Your task to perform on an android device: turn off picture-in-picture Image 0: 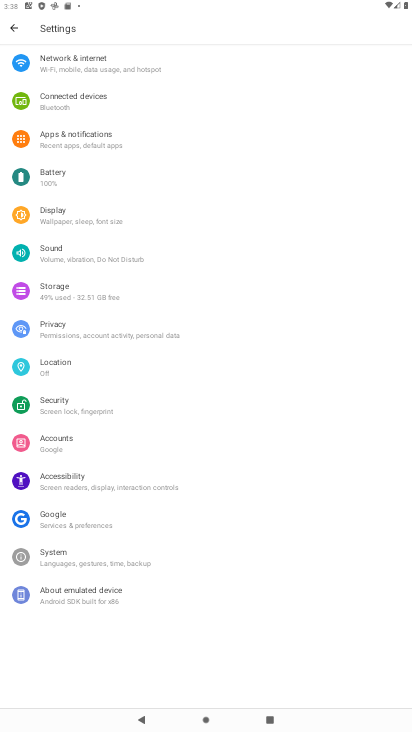
Step 0: press home button
Your task to perform on an android device: turn off picture-in-picture Image 1: 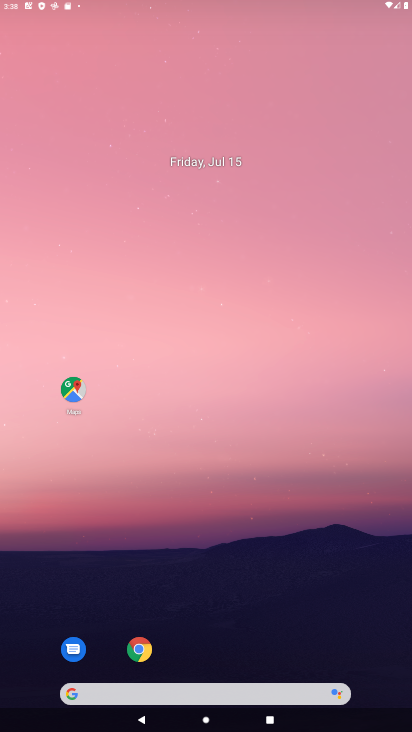
Step 1: drag from (249, 640) to (249, 83)
Your task to perform on an android device: turn off picture-in-picture Image 2: 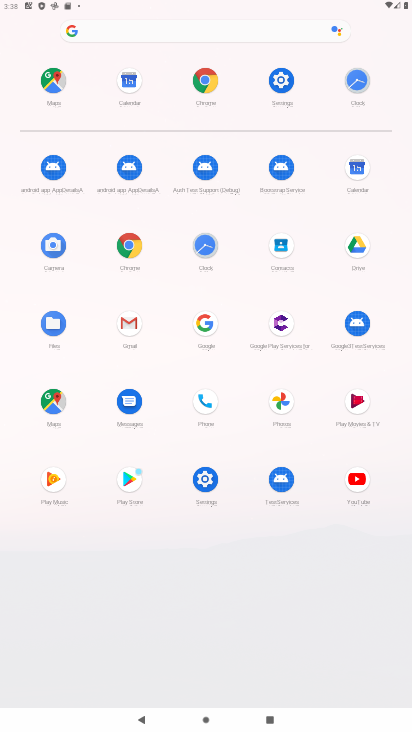
Step 2: click (195, 83)
Your task to perform on an android device: turn off picture-in-picture Image 3: 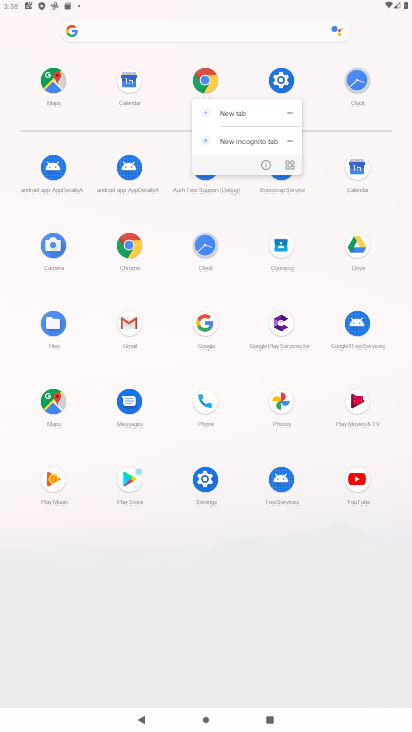
Step 3: click (263, 164)
Your task to perform on an android device: turn off picture-in-picture Image 4: 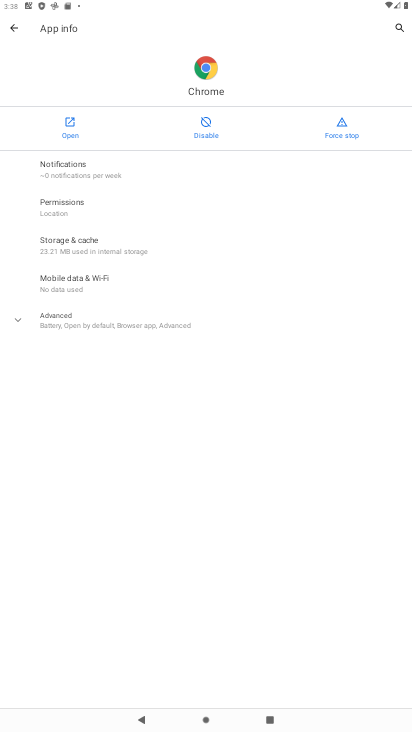
Step 4: click (98, 318)
Your task to perform on an android device: turn off picture-in-picture Image 5: 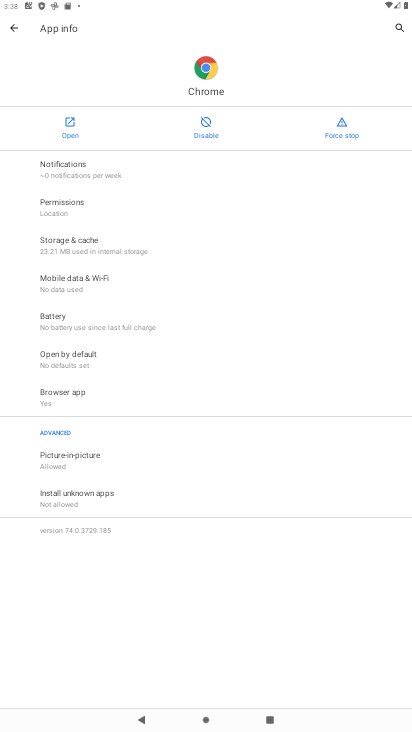
Step 5: click (69, 464)
Your task to perform on an android device: turn off picture-in-picture Image 6: 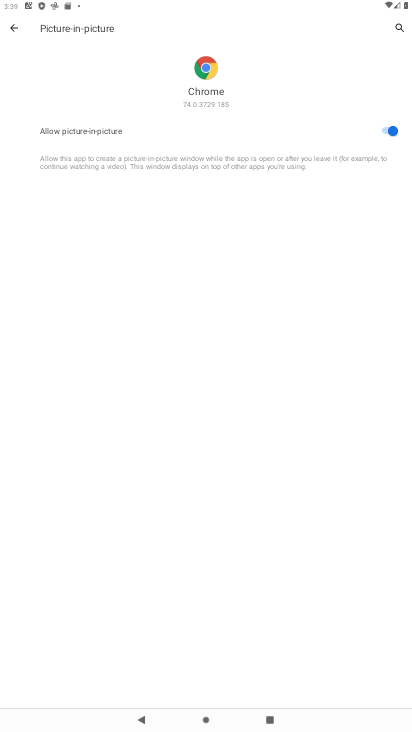
Step 6: click (392, 132)
Your task to perform on an android device: turn off picture-in-picture Image 7: 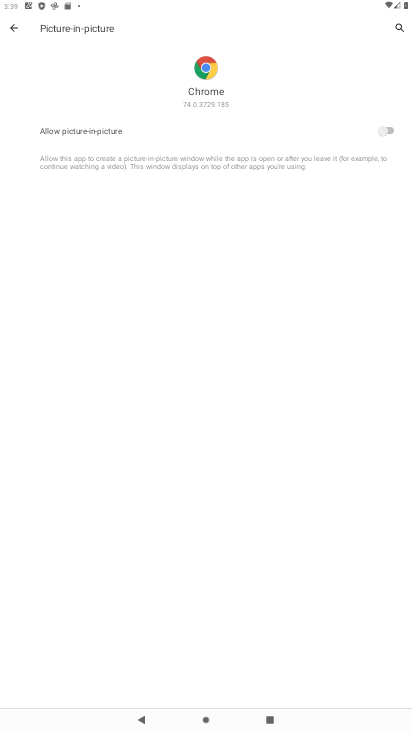
Step 7: task complete